Your task to perform on an android device: refresh tabs in the chrome app Image 0: 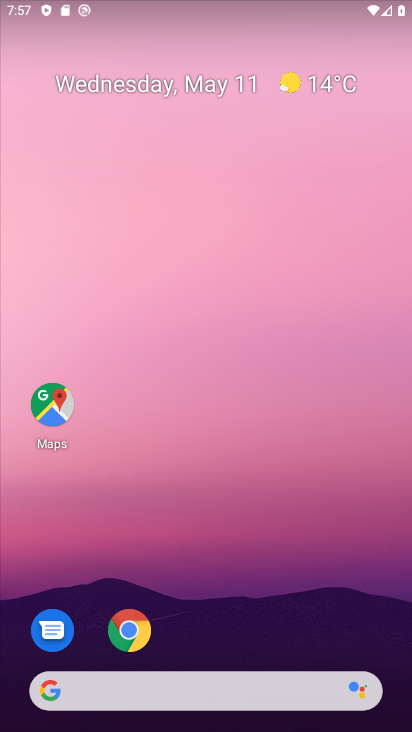
Step 0: click (139, 637)
Your task to perform on an android device: refresh tabs in the chrome app Image 1: 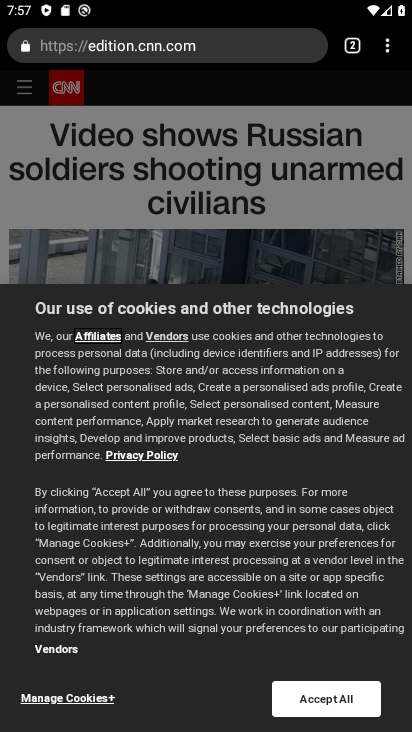
Step 1: click (386, 49)
Your task to perform on an android device: refresh tabs in the chrome app Image 2: 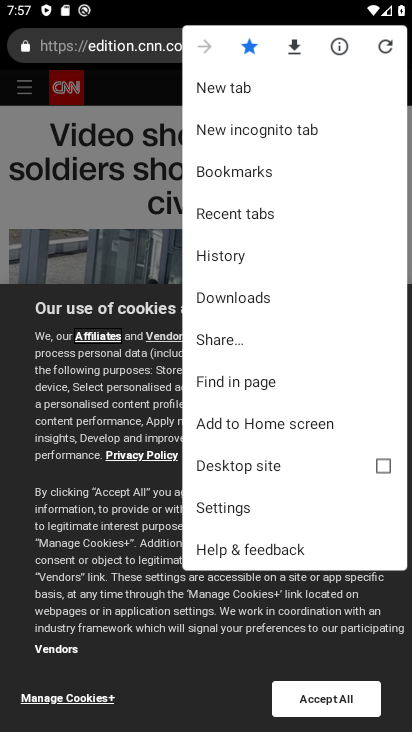
Step 2: click (386, 49)
Your task to perform on an android device: refresh tabs in the chrome app Image 3: 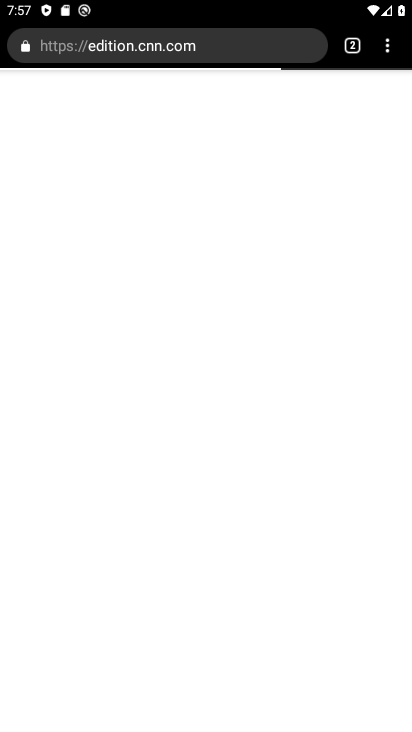
Step 3: task complete